Your task to perform on an android device: Is it going to rain today? Image 0: 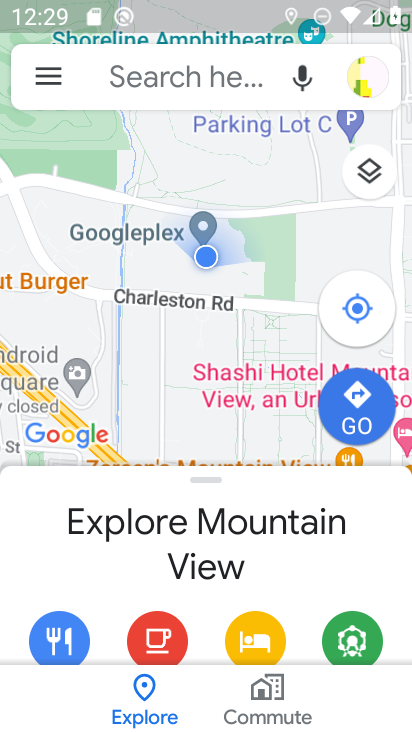
Step 0: press home button
Your task to perform on an android device: Is it going to rain today? Image 1: 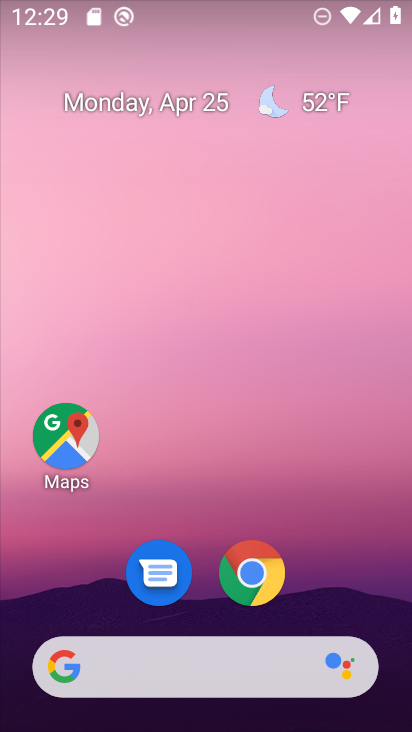
Step 1: click (270, 96)
Your task to perform on an android device: Is it going to rain today? Image 2: 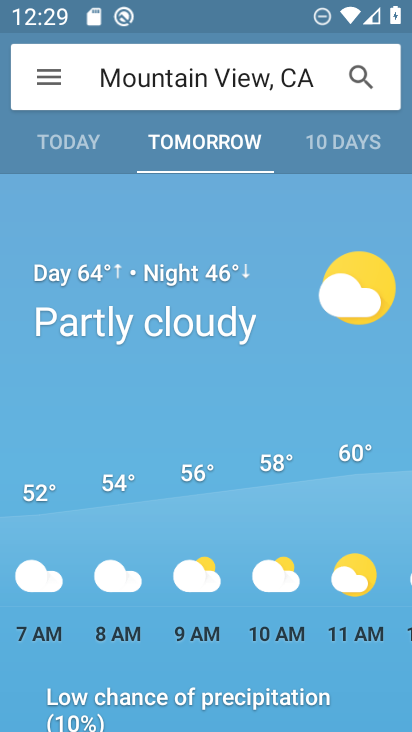
Step 2: click (53, 147)
Your task to perform on an android device: Is it going to rain today? Image 3: 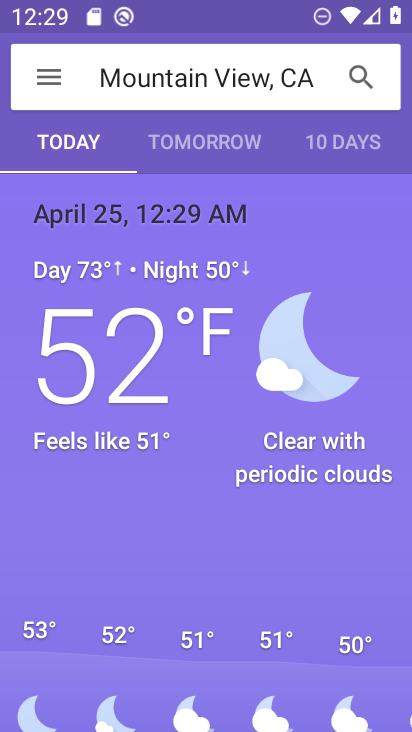
Step 3: task complete